Your task to perform on an android device: What's the weather going to be tomorrow? Image 0: 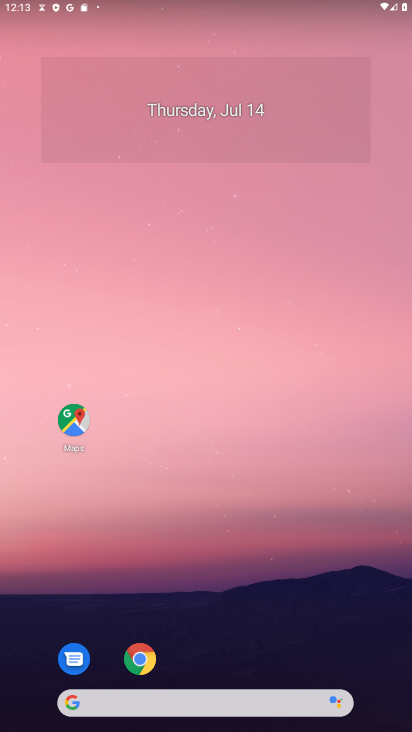
Step 0: click (125, 702)
Your task to perform on an android device: What's the weather going to be tomorrow? Image 1: 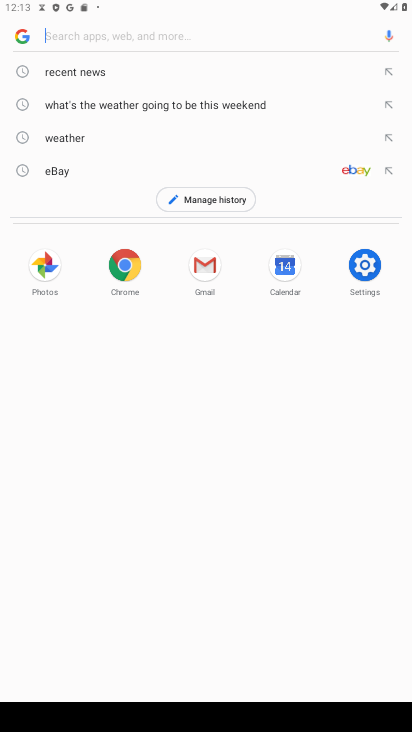
Step 1: type "What's the weather going to be tomorrow?"
Your task to perform on an android device: What's the weather going to be tomorrow? Image 2: 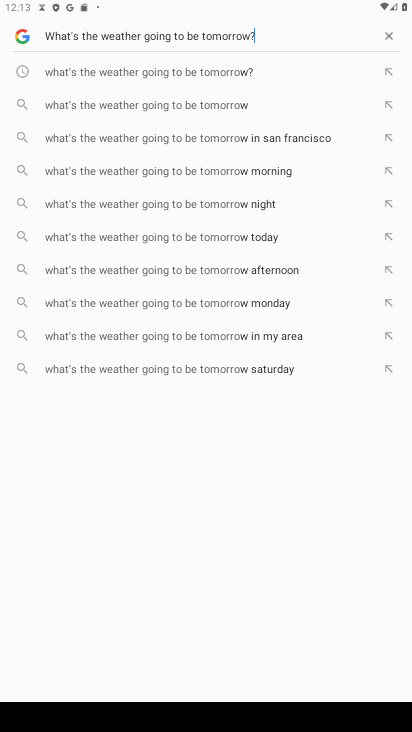
Step 2: type ""
Your task to perform on an android device: What's the weather going to be tomorrow? Image 3: 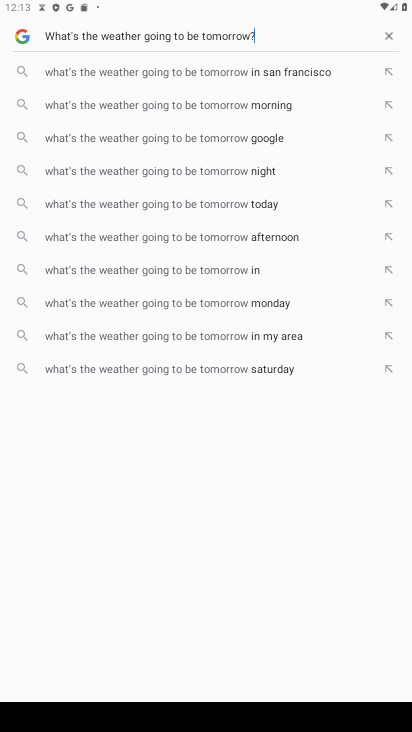
Step 3: click (189, 71)
Your task to perform on an android device: What's the weather going to be tomorrow? Image 4: 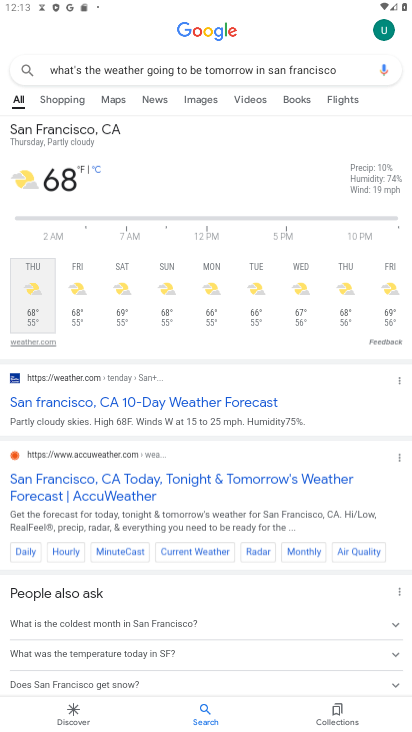
Step 4: task complete